Your task to perform on an android device: install app "Google Chat" Image 0: 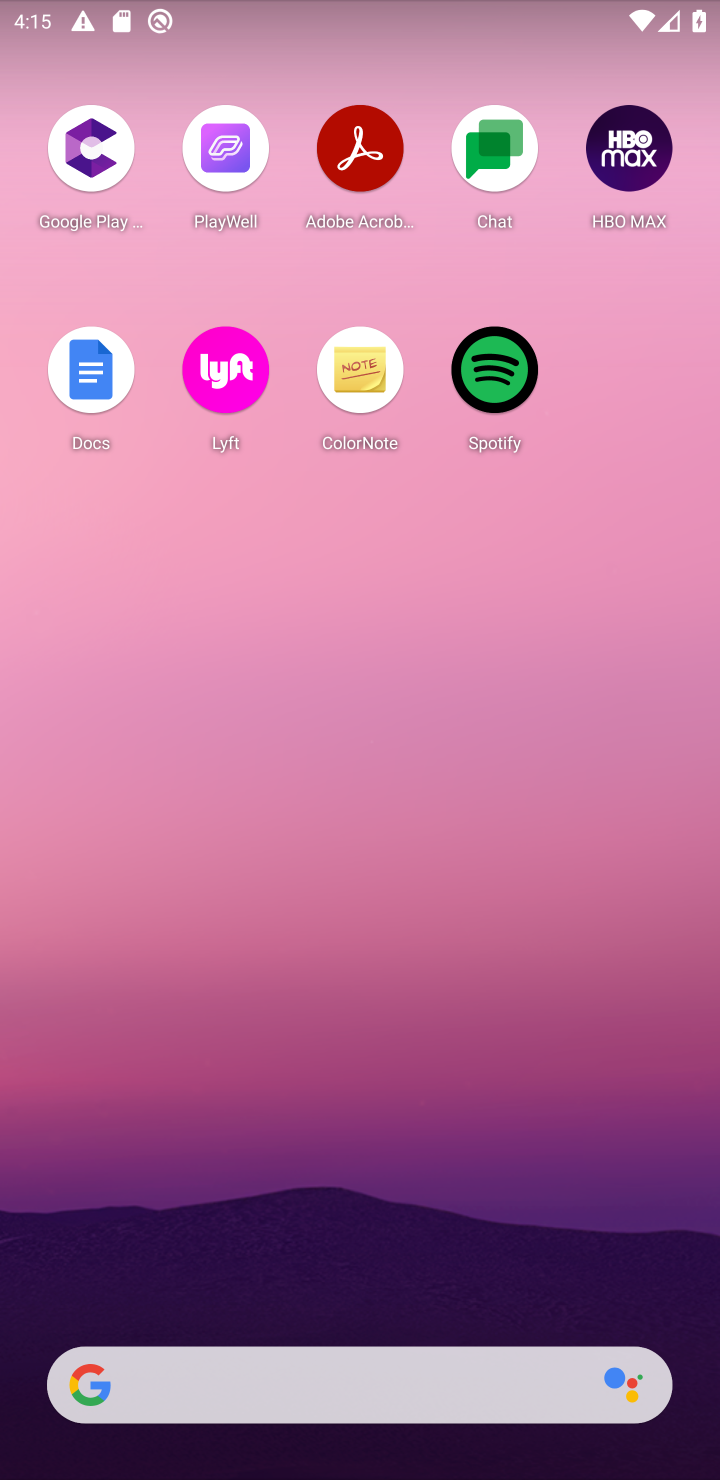
Step 0: drag from (231, 1370) to (250, 361)
Your task to perform on an android device: install app "Google Chat" Image 1: 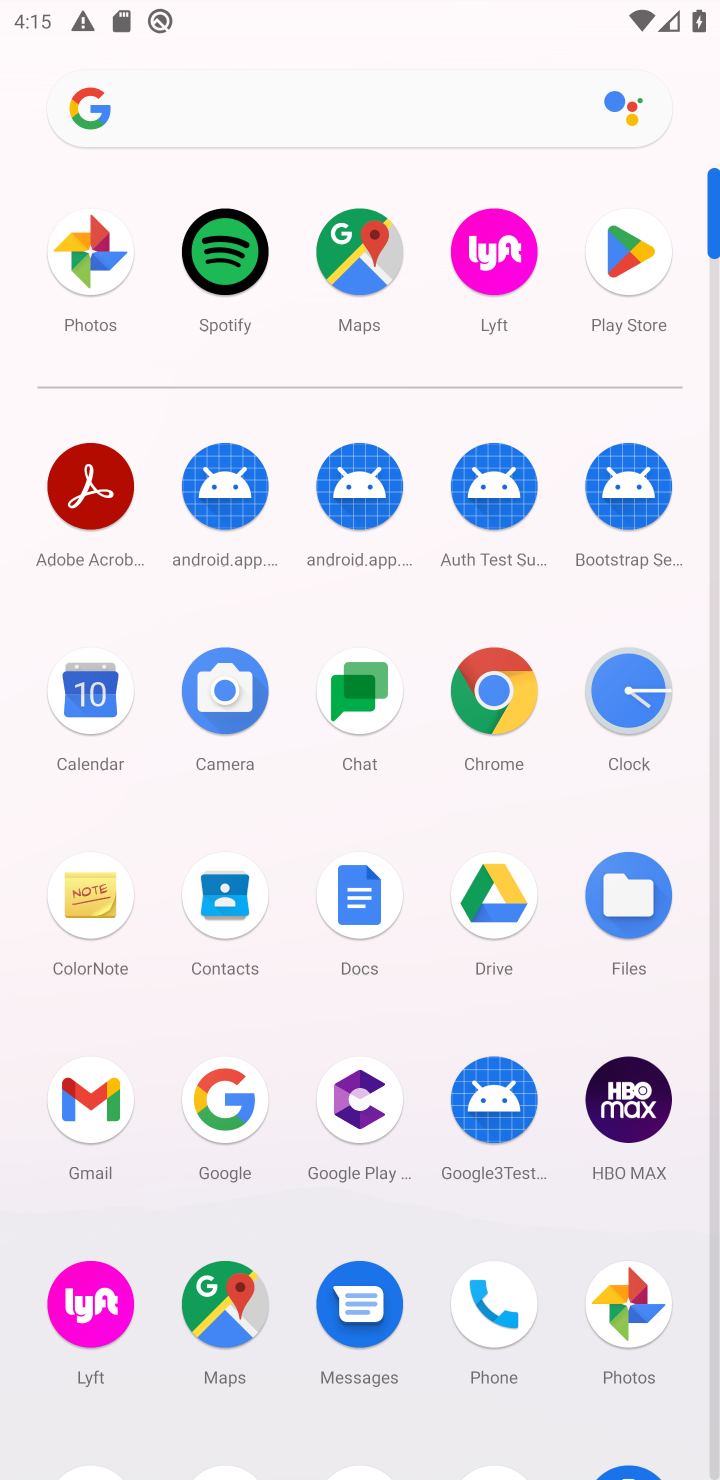
Step 1: click (635, 261)
Your task to perform on an android device: install app "Google Chat" Image 2: 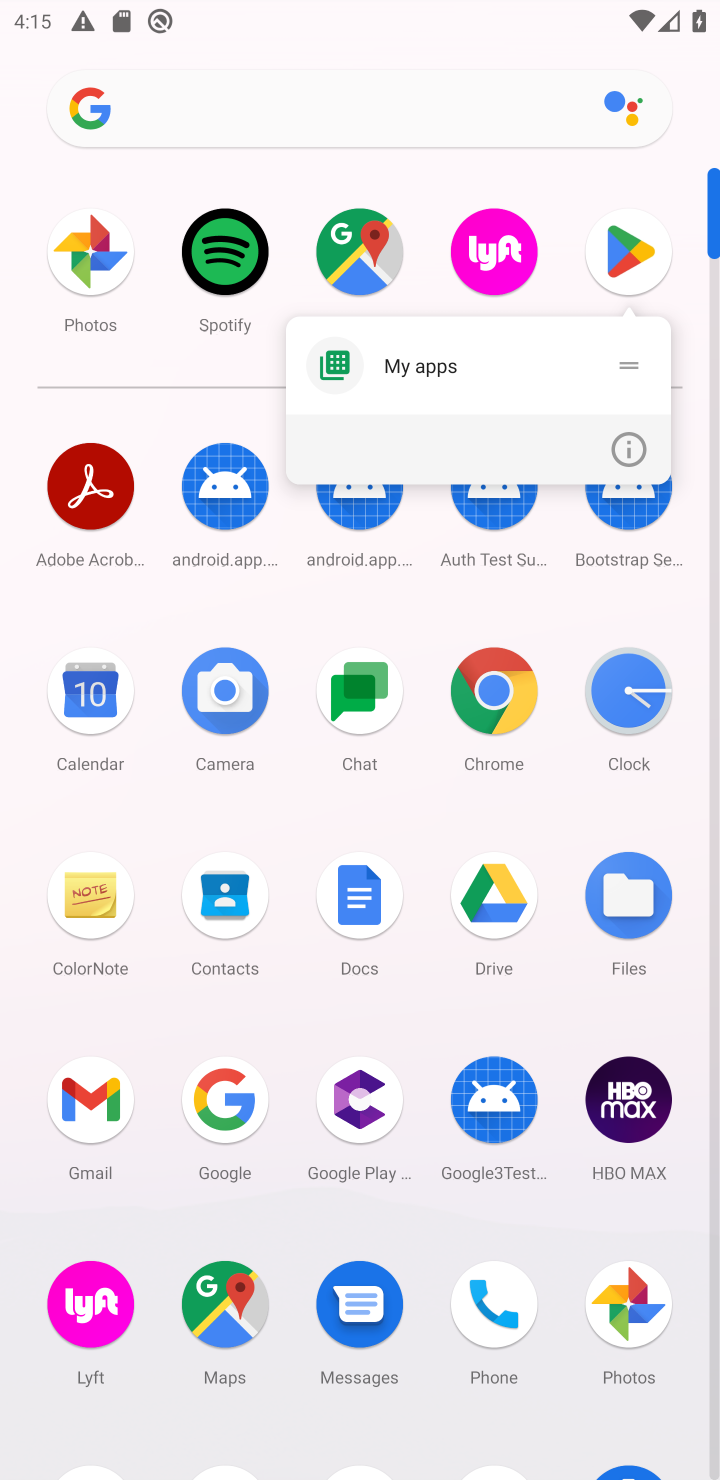
Step 2: click (633, 260)
Your task to perform on an android device: install app "Google Chat" Image 3: 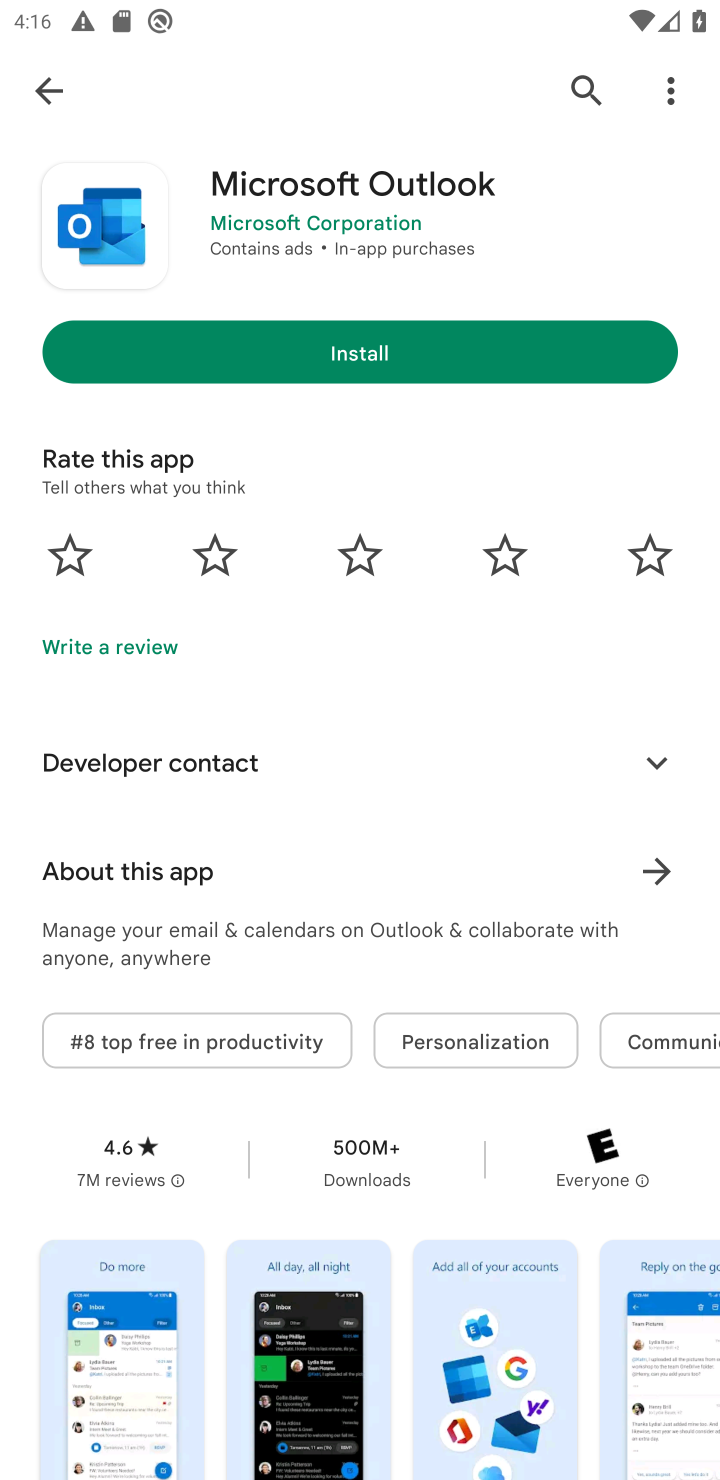
Step 3: click (30, 66)
Your task to perform on an android device: install app "Google Chat" Image 4: 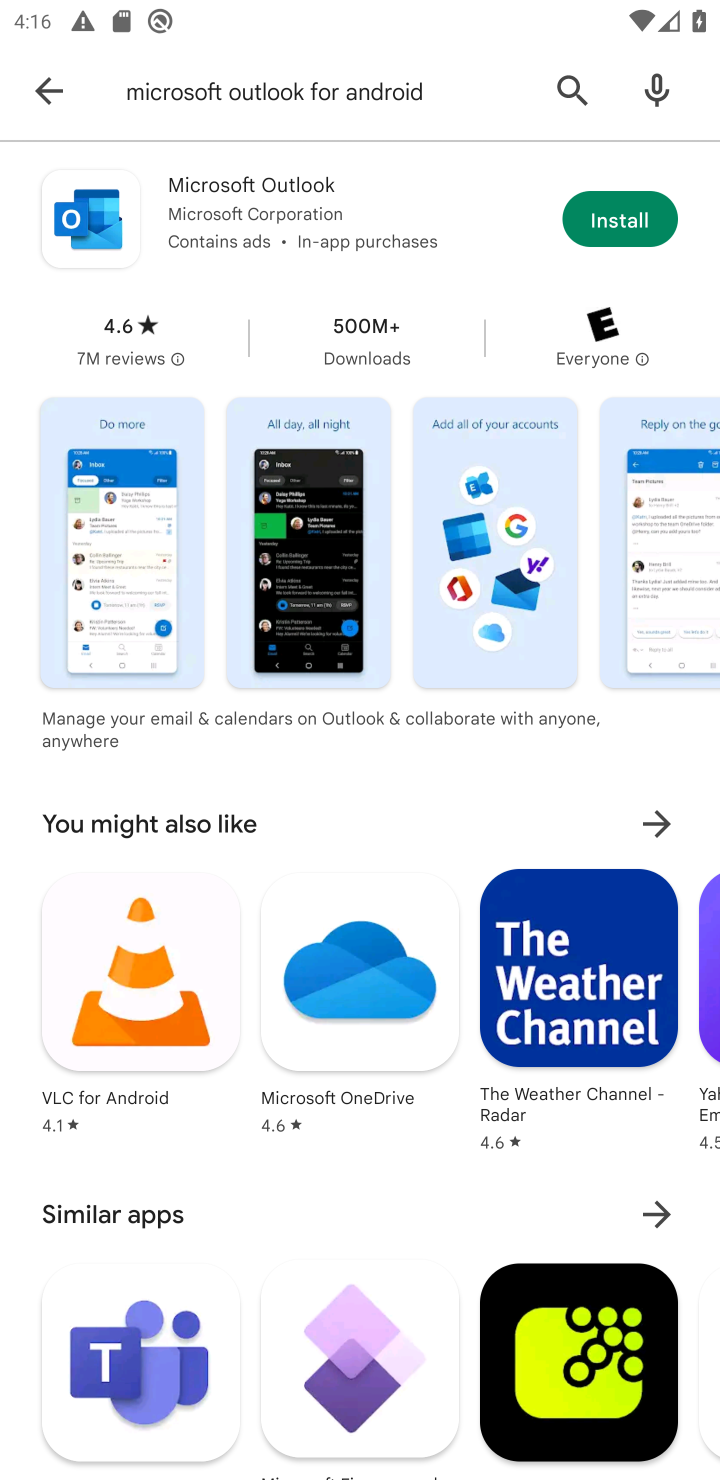
Step 4: click (44, 78)
Your task to perform on an android device: install app "Google Chat" Image 5: 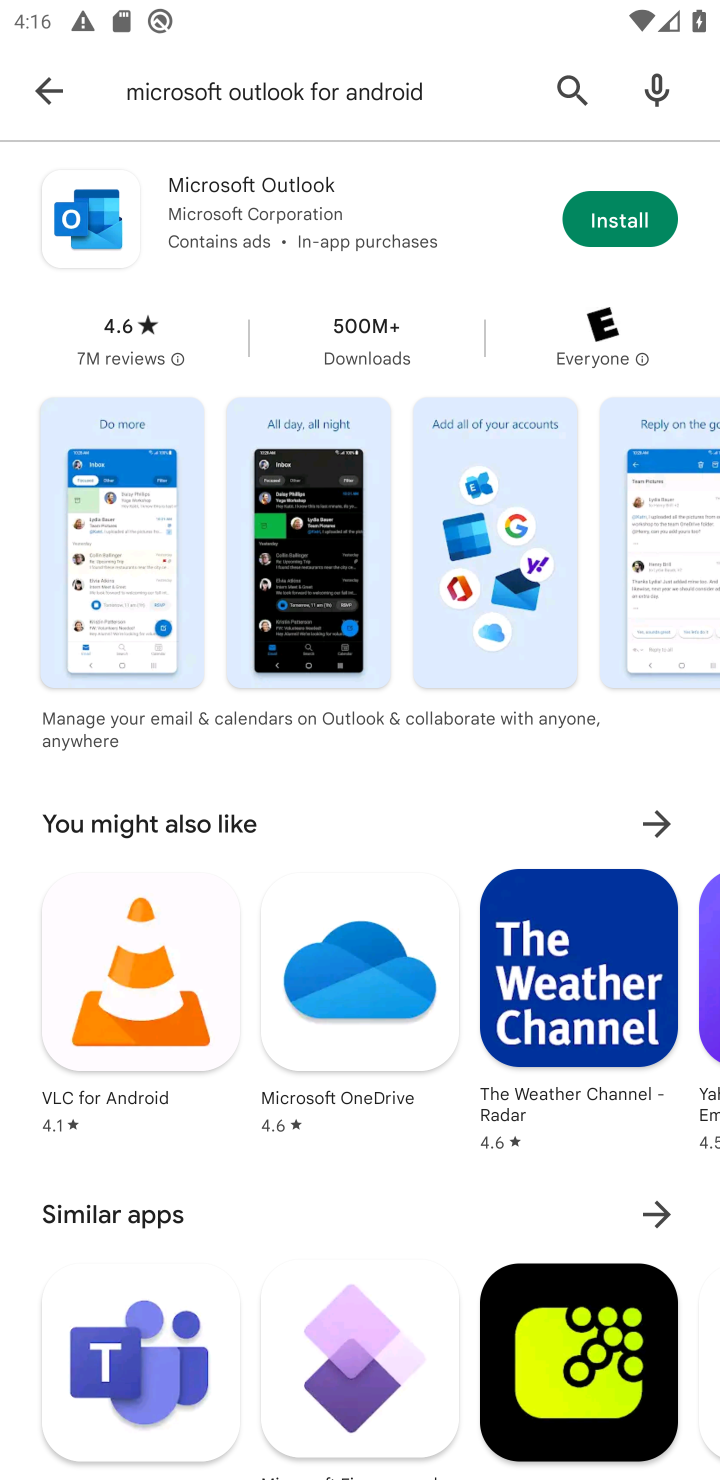
Step 5: click (48, 87)
Your task to perform on an android device: install app "Google Chat" Image 6: 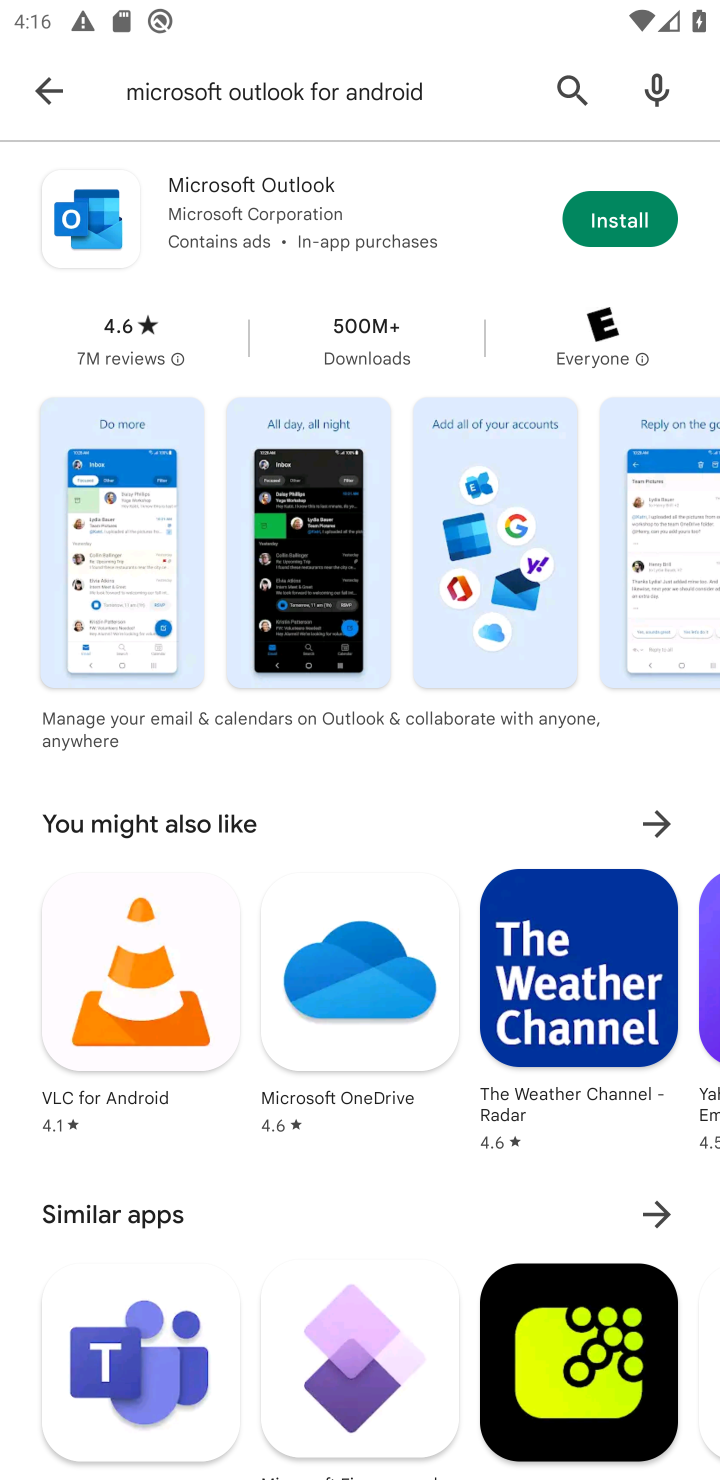
Step 6: click (40, 56)
Your task to perform on an android device: install app "Google Chat" Image 7: 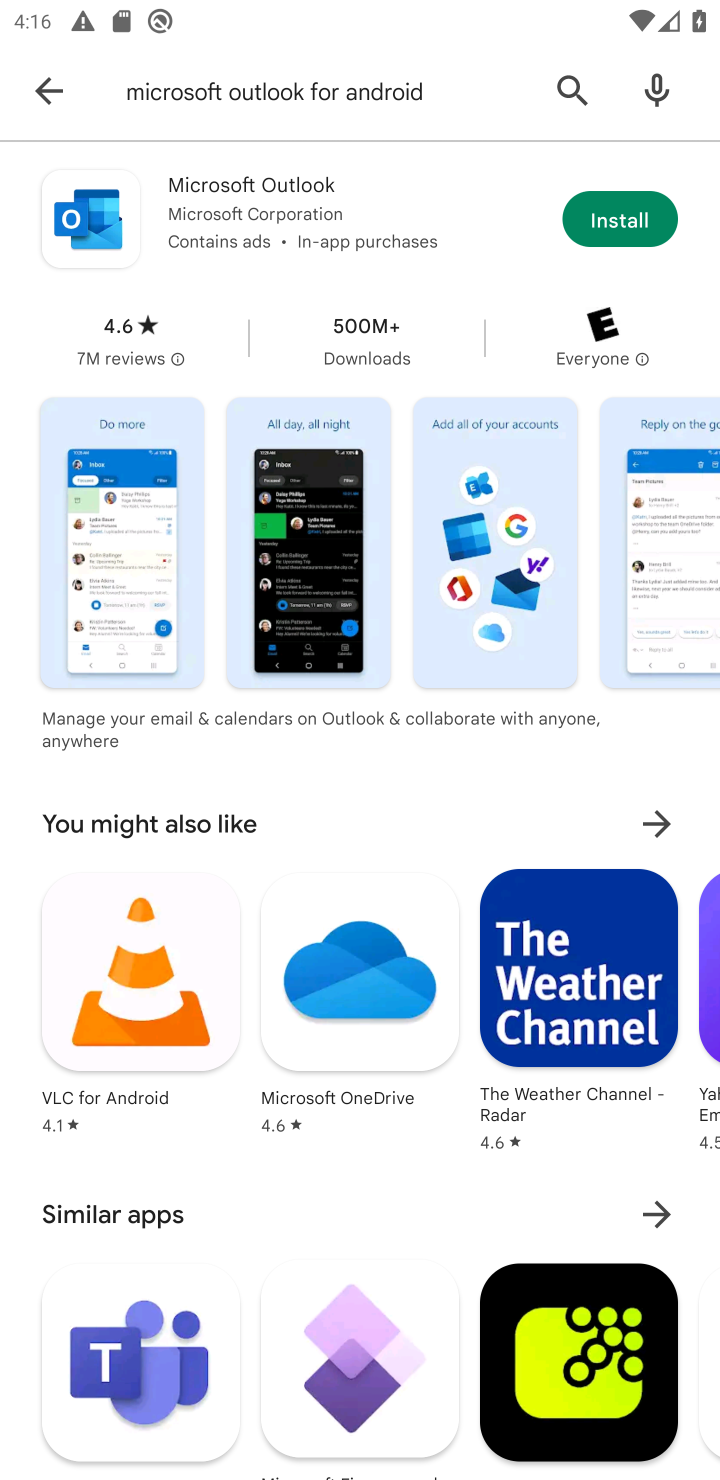
Step 7: click (59, 85)
Your task to perform on an android device: install app "Google Chat" Image 8: 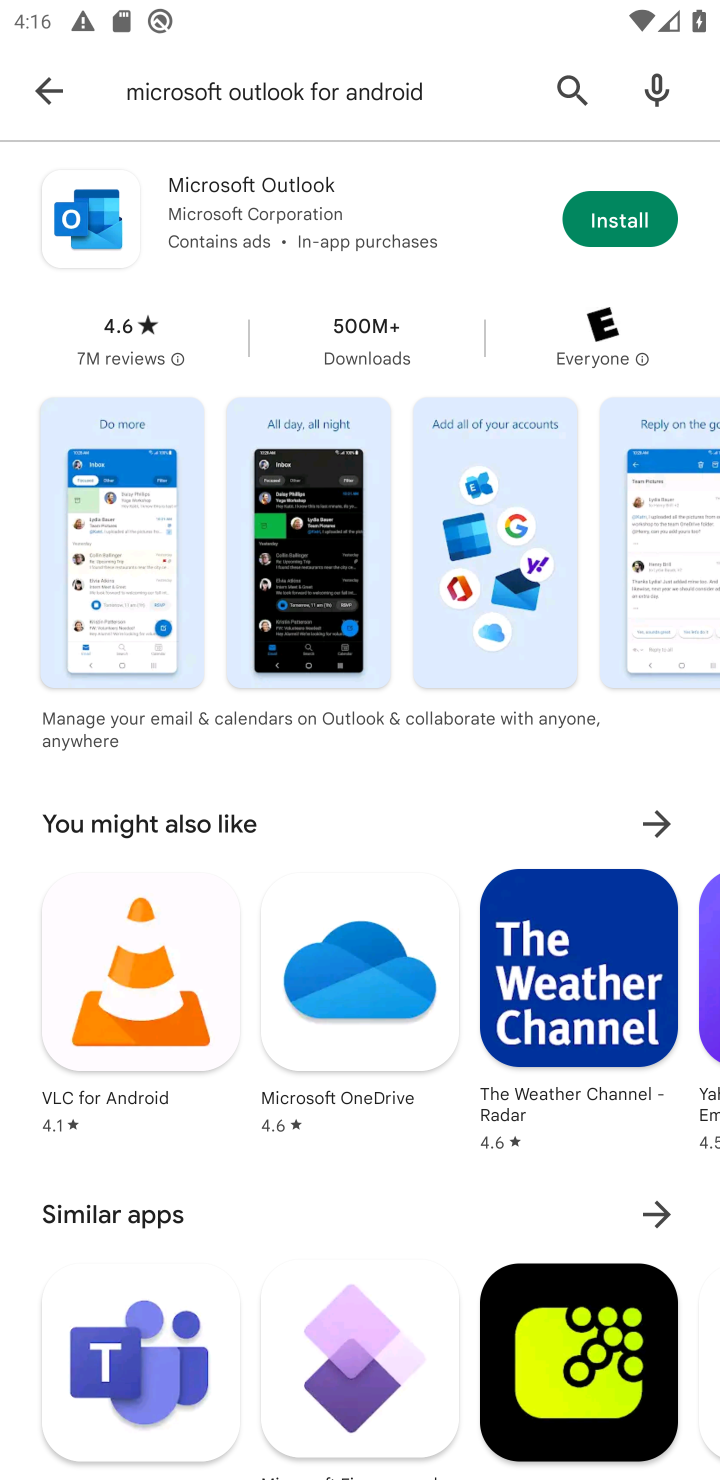
Step 8: click (552, 87)
Your task to perform on an android device: install app "Google Chat" Image 9: 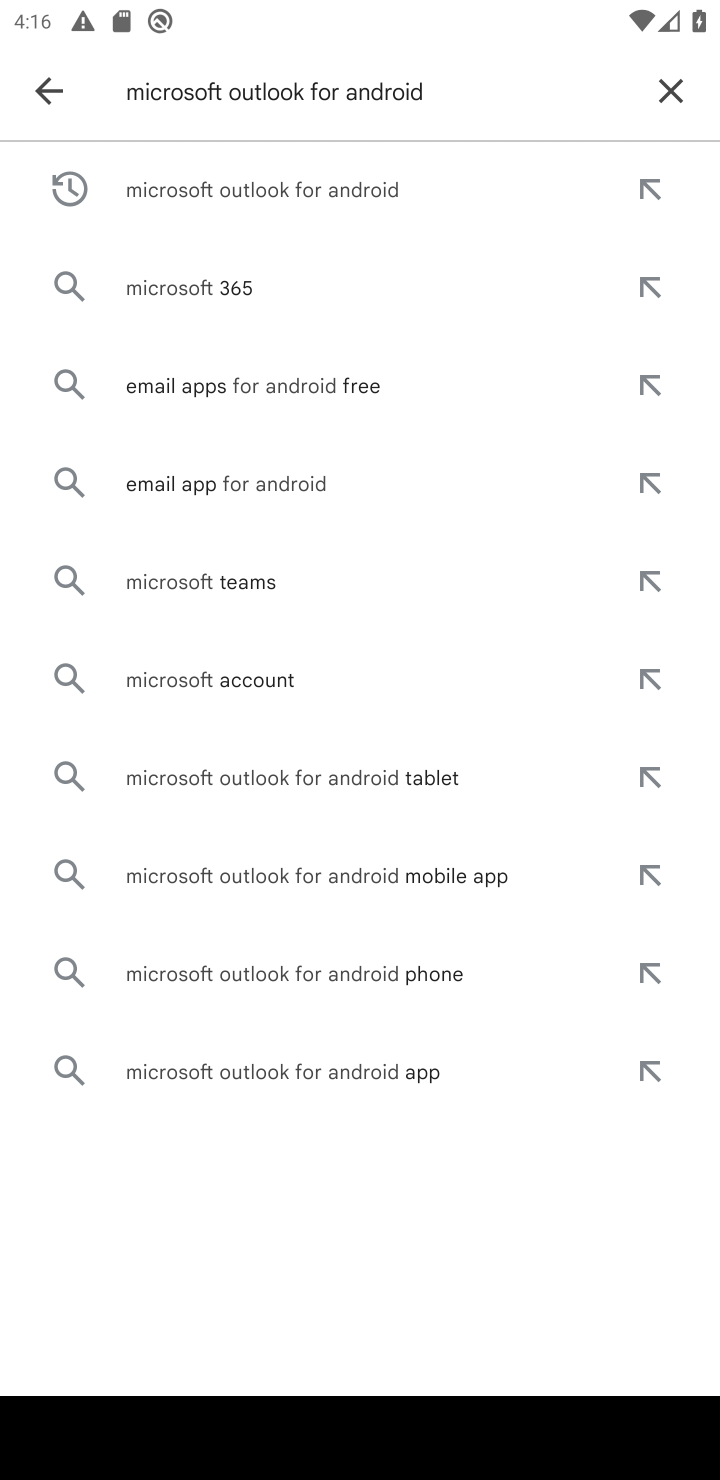
Step 9: click (653, 75)
Your task to perform on an android device: install app "Google Chat" Image 10: 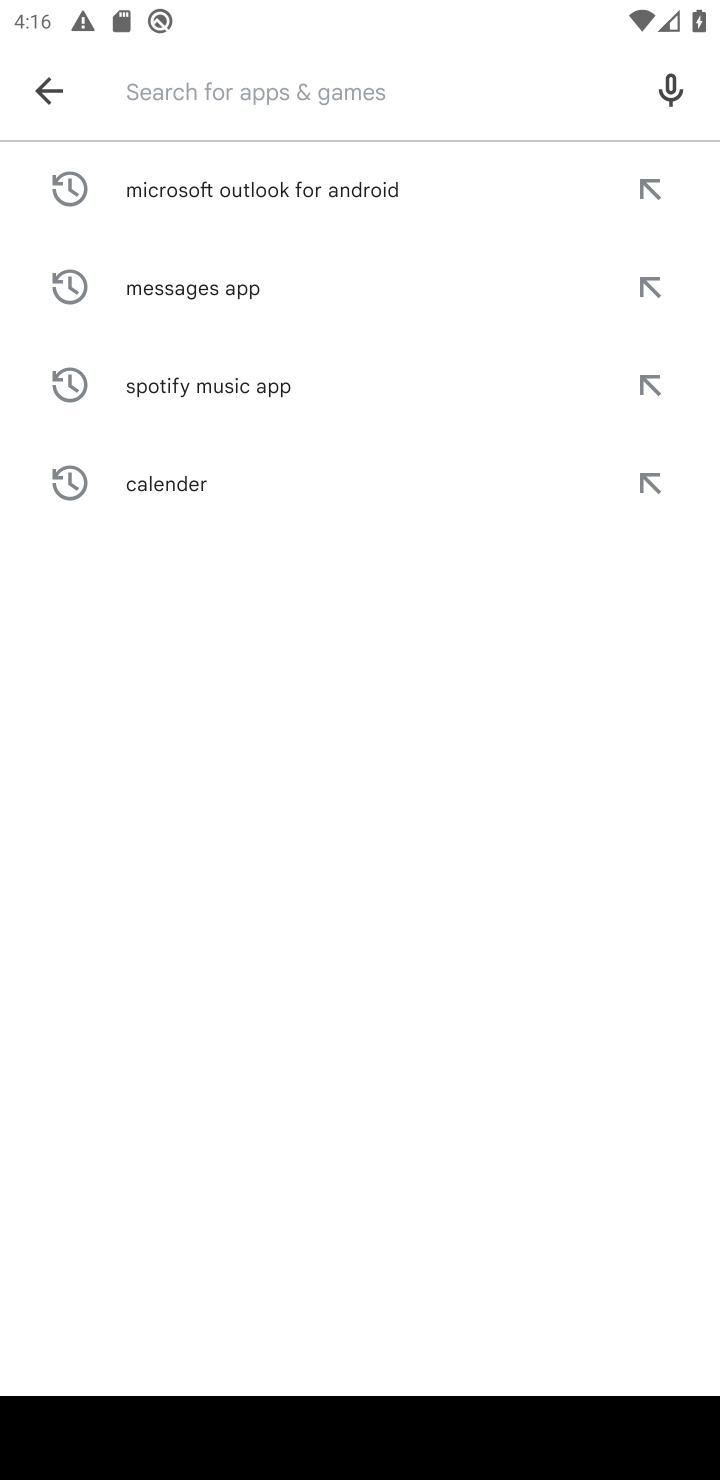
Step 10: click (269, 104)
Your task to perform on an android device: install app "Google Chat" Image 11: 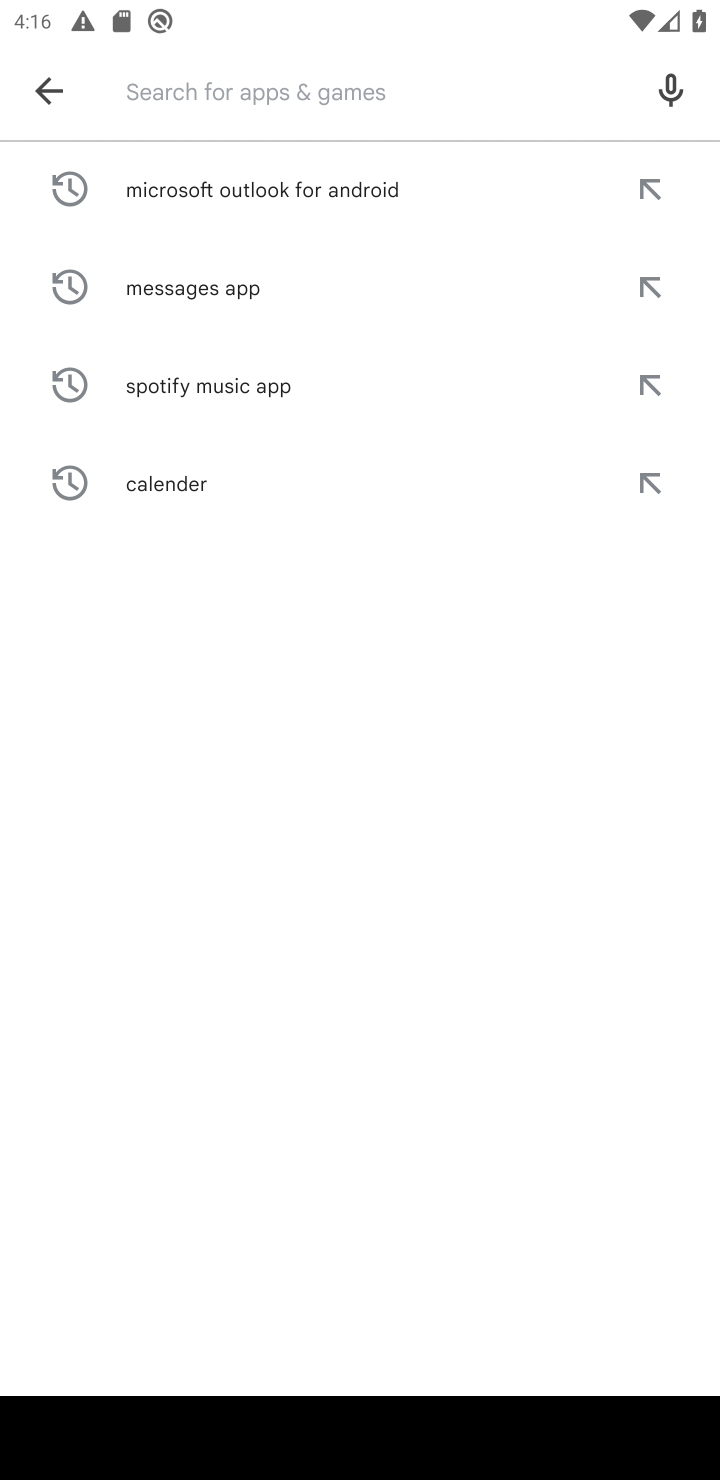
Step 11: type "Google Chat "
Your task to perform on an android device: install app "Google Chat" Image 12: 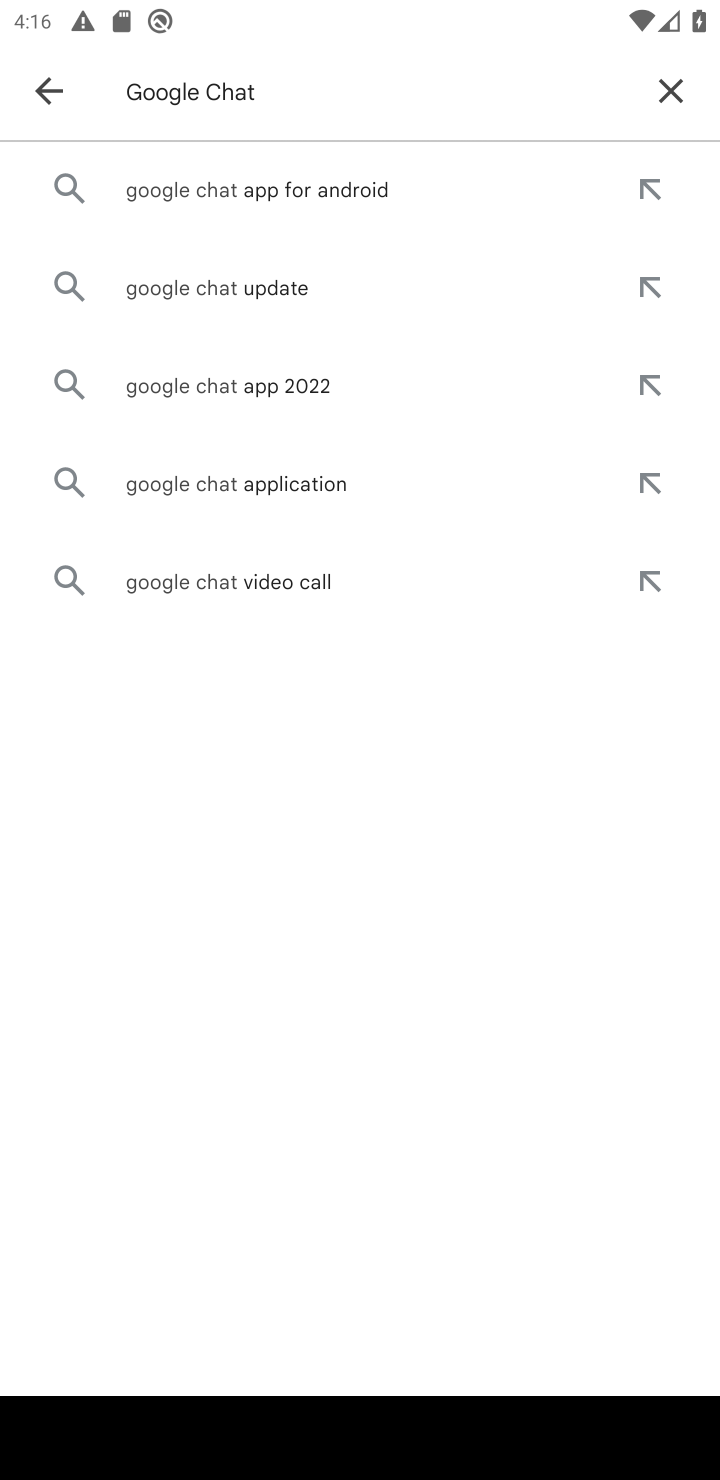
Step 12: click (255, 197)
Your task to perform on an android device: install app "Google Chat" Image 13: 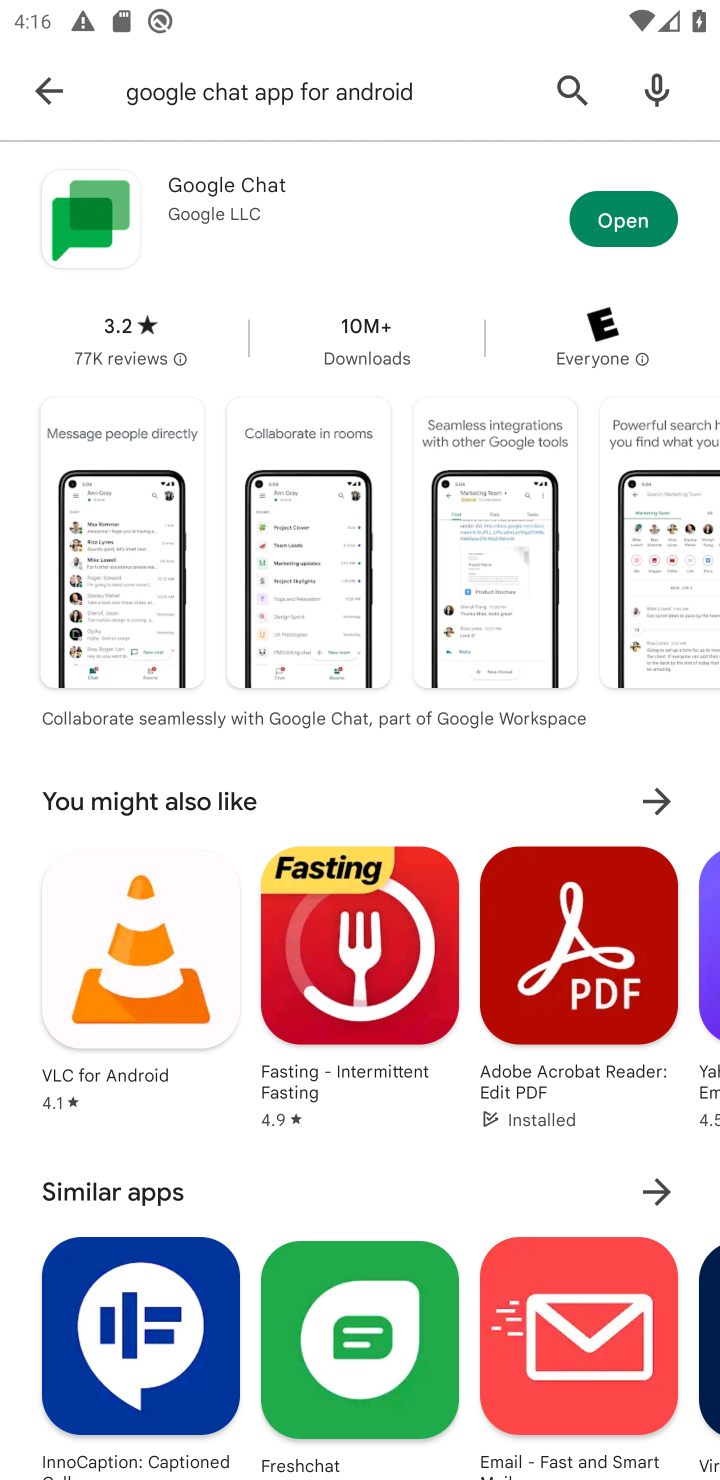
Step 13: click (635, 220)
Your task to perform on an android device: install app "Google Chat" Image 14: 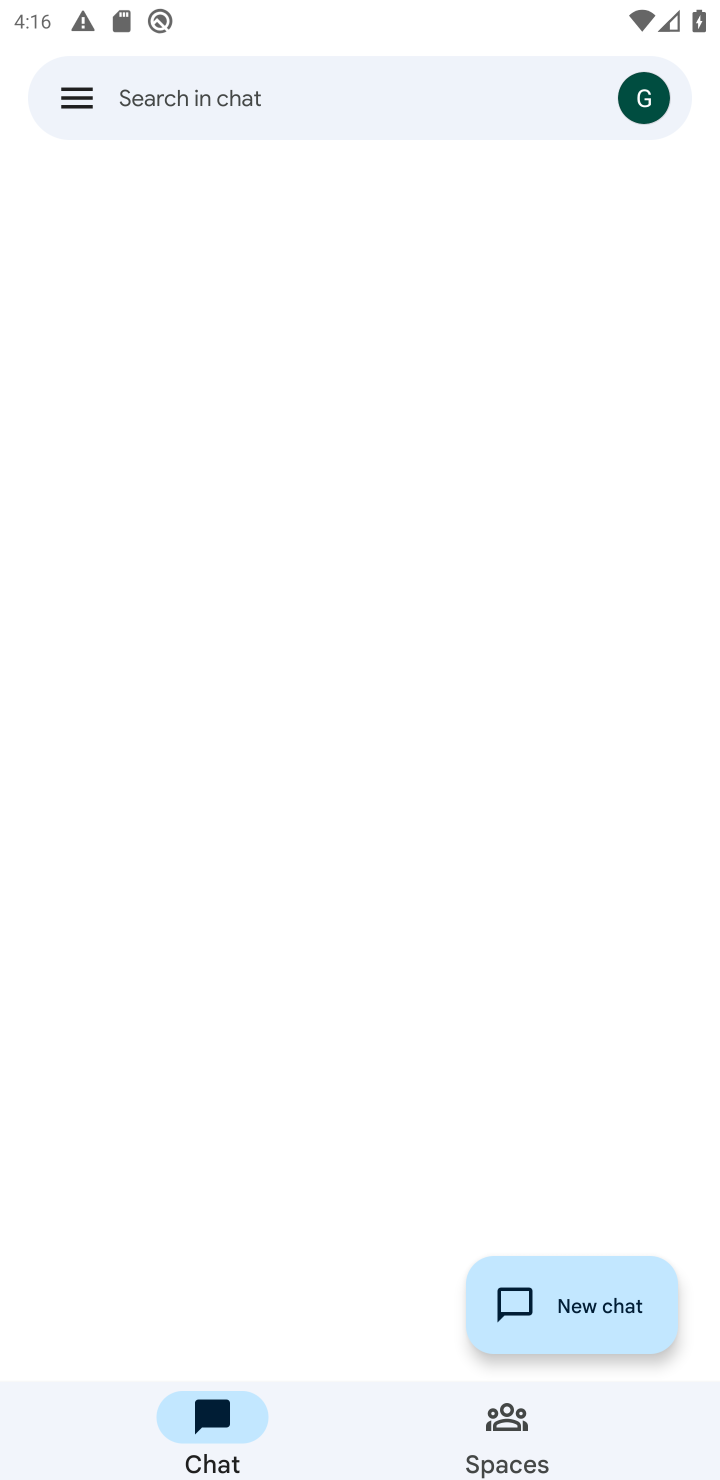
Step 14: task complete